Your task to perform on an android device: Open the map Image 0: 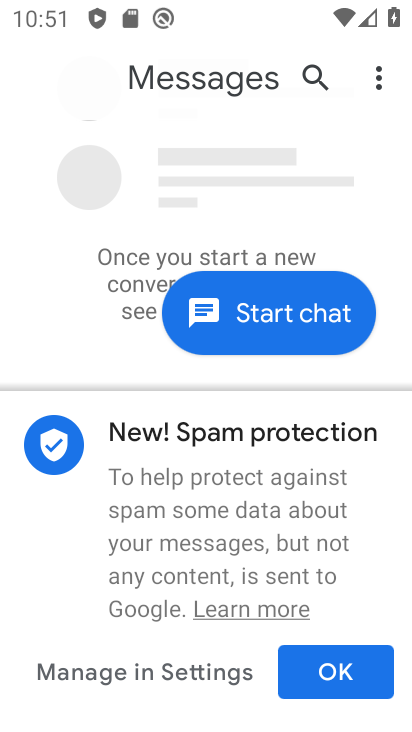
Step 0: press home button
Your task to perform on an android device: Open the map Image 1: 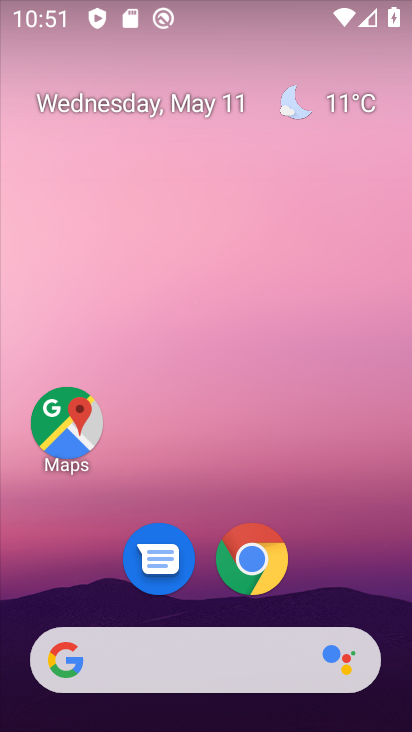
Step 1: click (65, 421)
Your task to perform on an android device: Open the map Image 2: 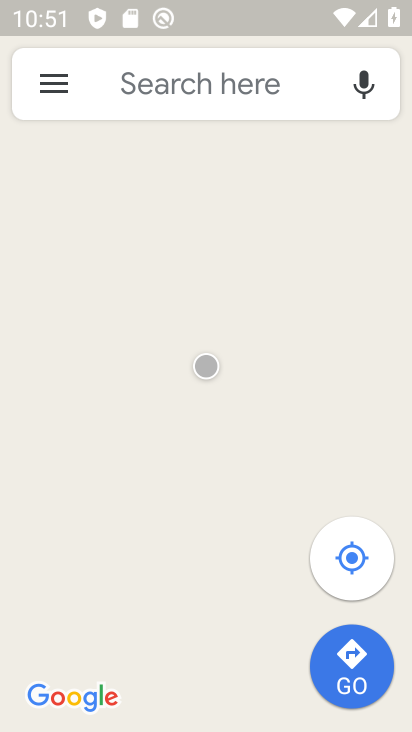
Step 2: task complete